Your task to perform on an android device: open the mobile data screen to see how much data has been used Image 0: 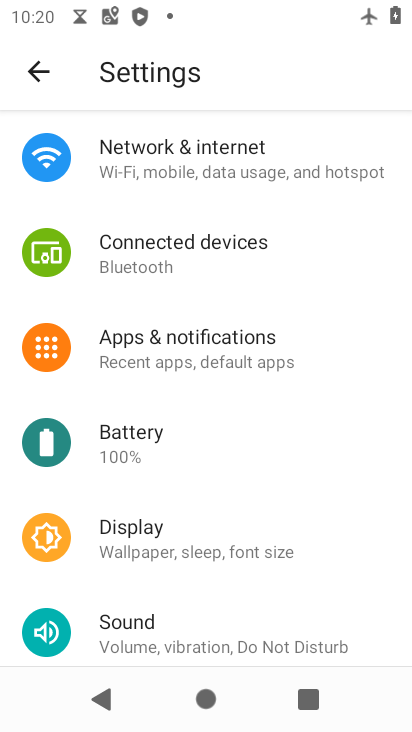
Step 0: click (226, 169)
Your task to perform on an android device: open the mobile data screen to see how much data has been used Image 1: 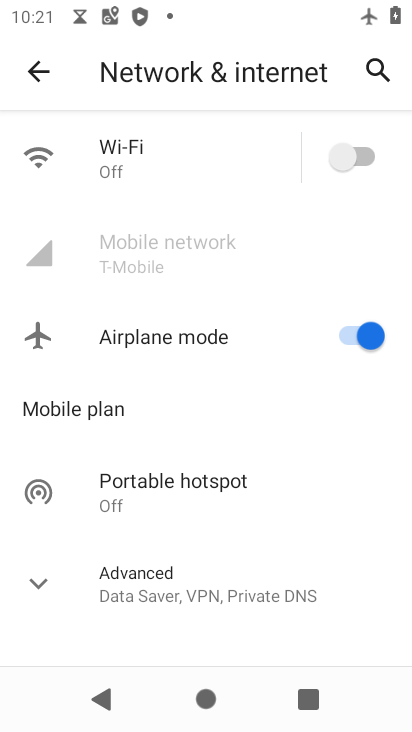
Step 1: task complete